Your task to perform on an android device: Search for Mexican restaurants on Maps Image 0: 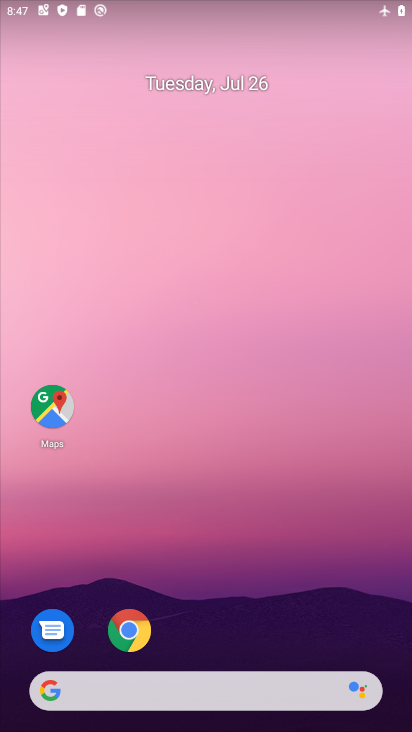
Step 0: drag from (291, 647) to (308, 9)
Your task to perform on an android device: Search for Mexican restaurants on Maps Image 1: 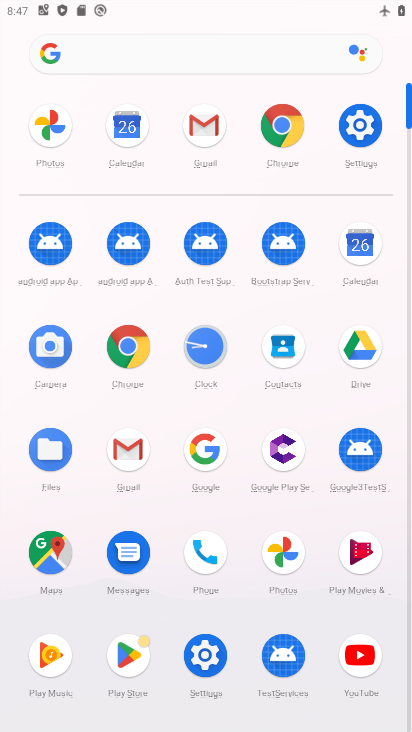
Step 1: click (59, 539)
Your task to perform on an android device: Search for Mexican restaurants on Maps Image 2: 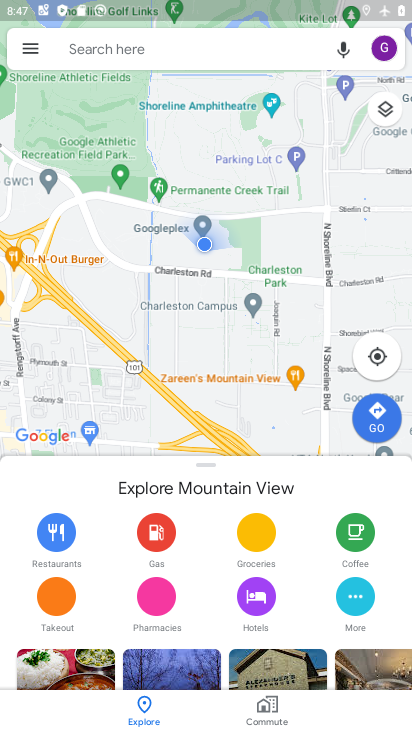
Step 2: click (230, 47)
Your task to perform on an android device: Search for Mexican restaurants on Maps Image 3: 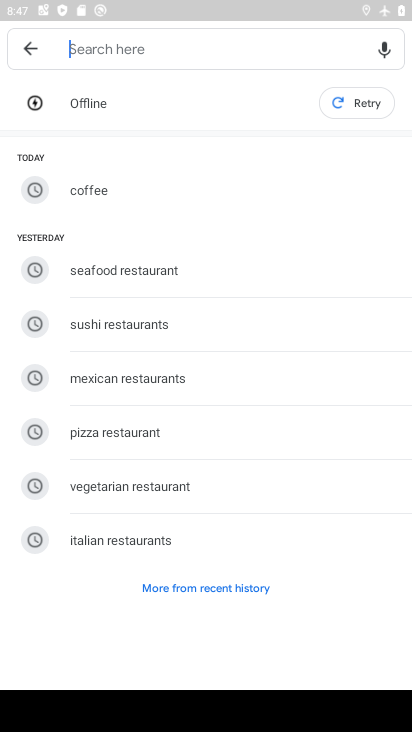
Step 3: type "me"
Your task to perform on an android device: Search for Mexican restaurants on Maps Image 4: 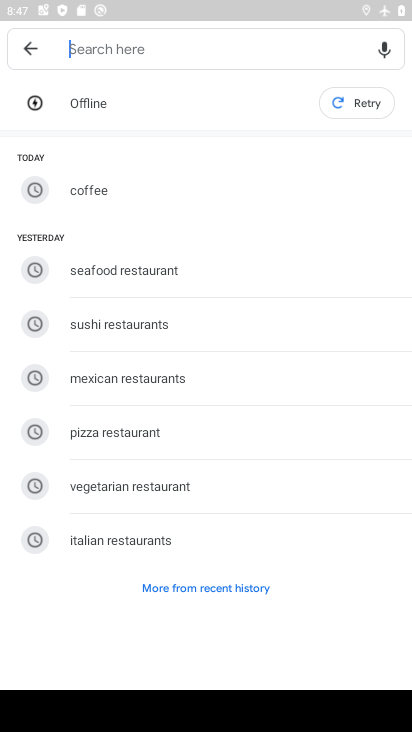
Step 4: click (194, 387)
Your task to perform on an android device: Search for Mexican restaurants on Maps Image 5: 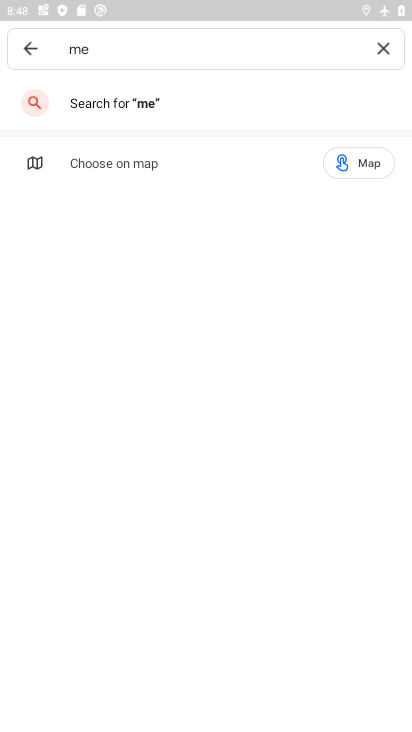
Step 5: task complete